Your task to perform on an android device: delete a single message in the gmail app Image 0: 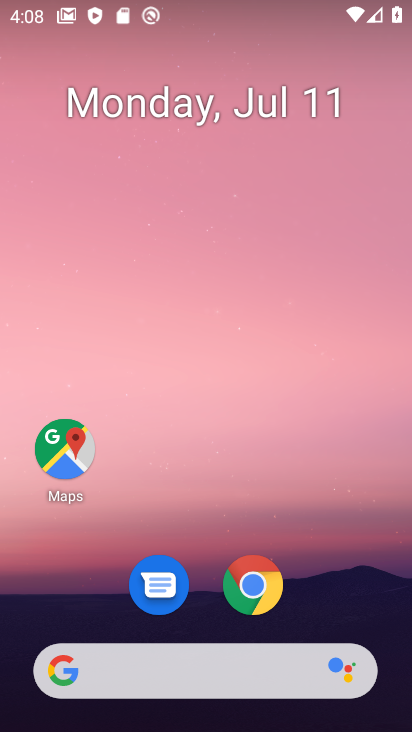
Step 0: drag from (321, 561) to (289, 33)
Your task to perform on an android device: delete a single message in the gmail app Image 1: 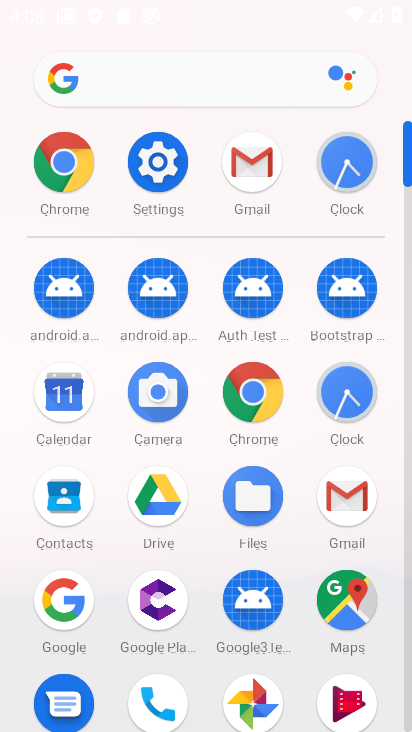
Step 1: click (256, 164)
Your task to perform on an android device: delete a single message in the gmail app Image 2: 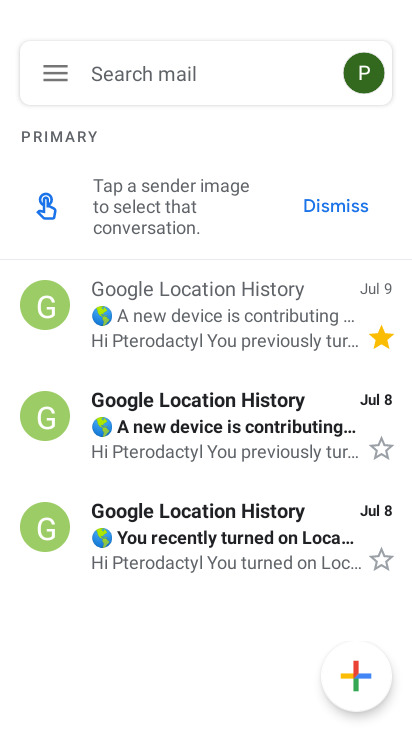
Step 2: click (185, 522)
Your task to perform on an android device: delete a single message in the gmail app Image 3: 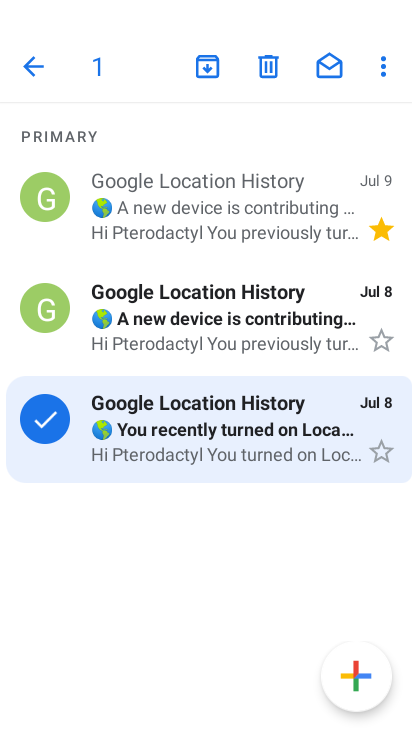
Step 3: click (270, 63)
Your task to perform on an android device: delete a single message in the gmail app Image 4: 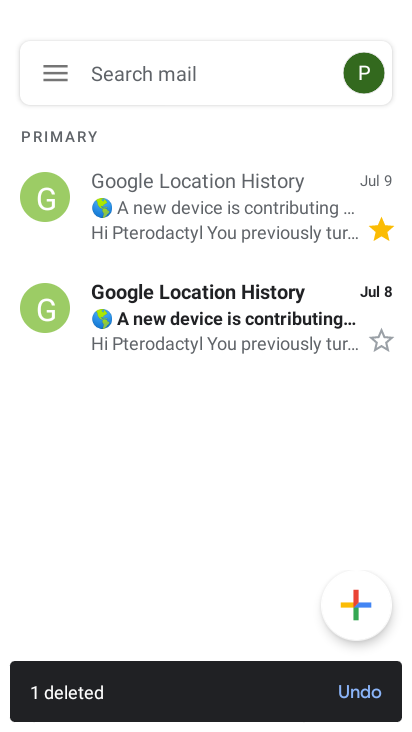
Step 4: task complete